Your task to perform on an android device: turn vacation reply on in the gmail app Image 0: 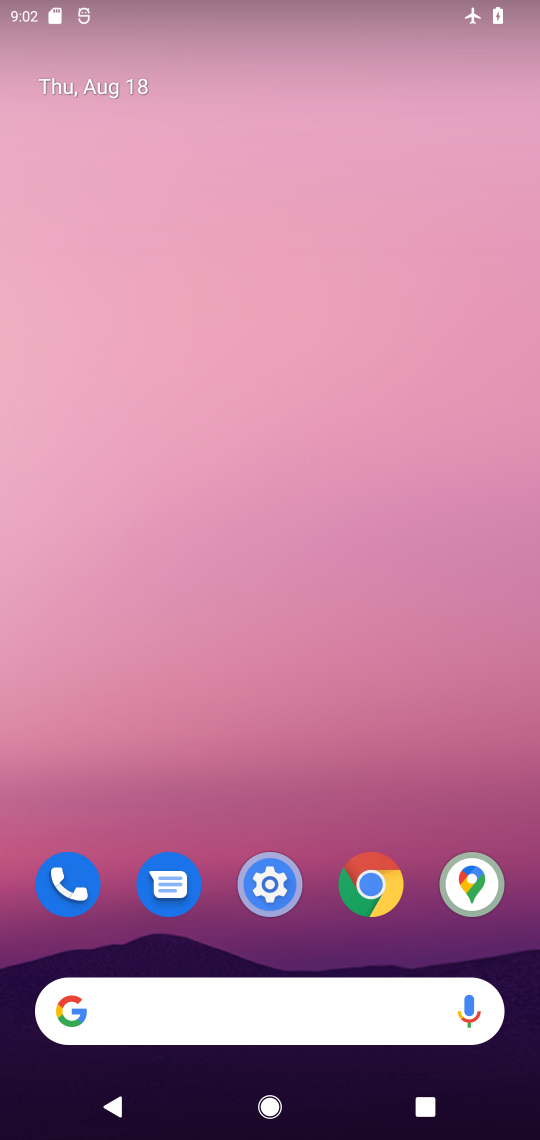
Step 0: drag from (221, 955) to (278, 24)
Your task to perform on an android device: turn vacation reply on in the gmail app Image 1: 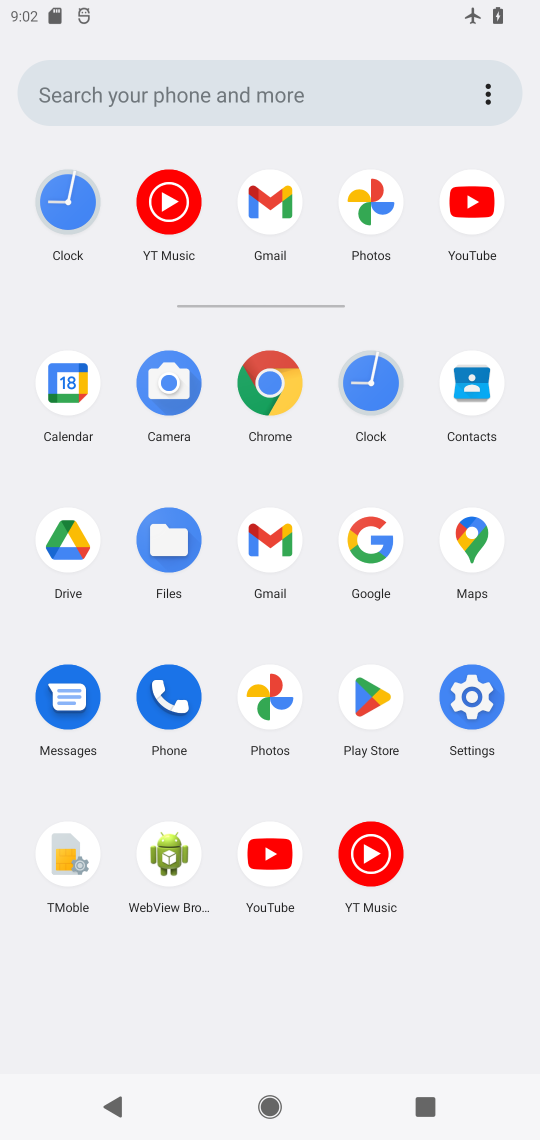
Step 1: click (285, 193)
Your task to perform on an android device: turn vacation reply on in the gmail app Image 2: 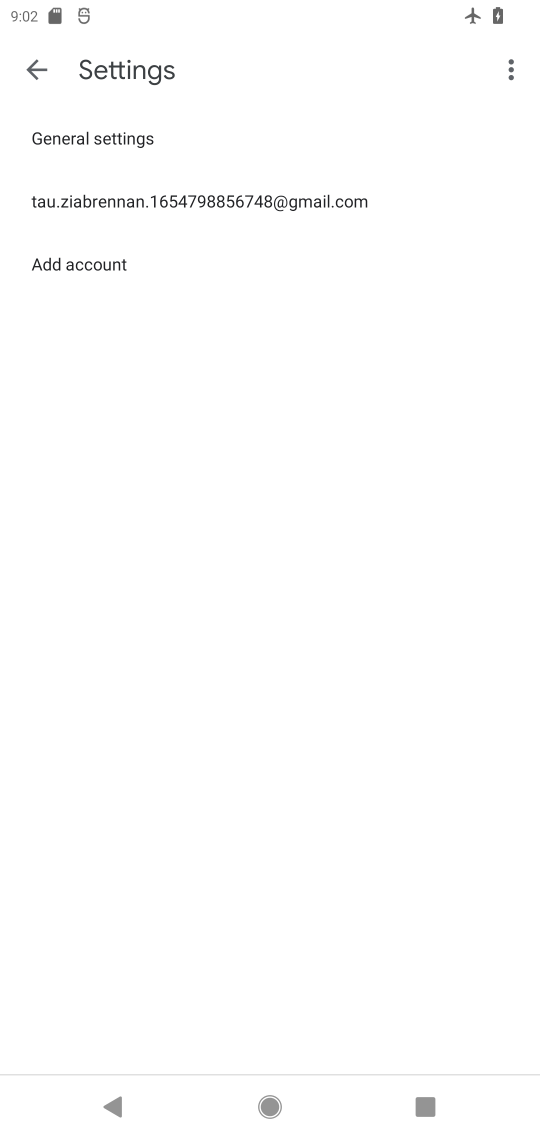
Step 2: click (241, 200)
Your task to perform on an android device: turn vacation reply on in the gmail app Image 3: 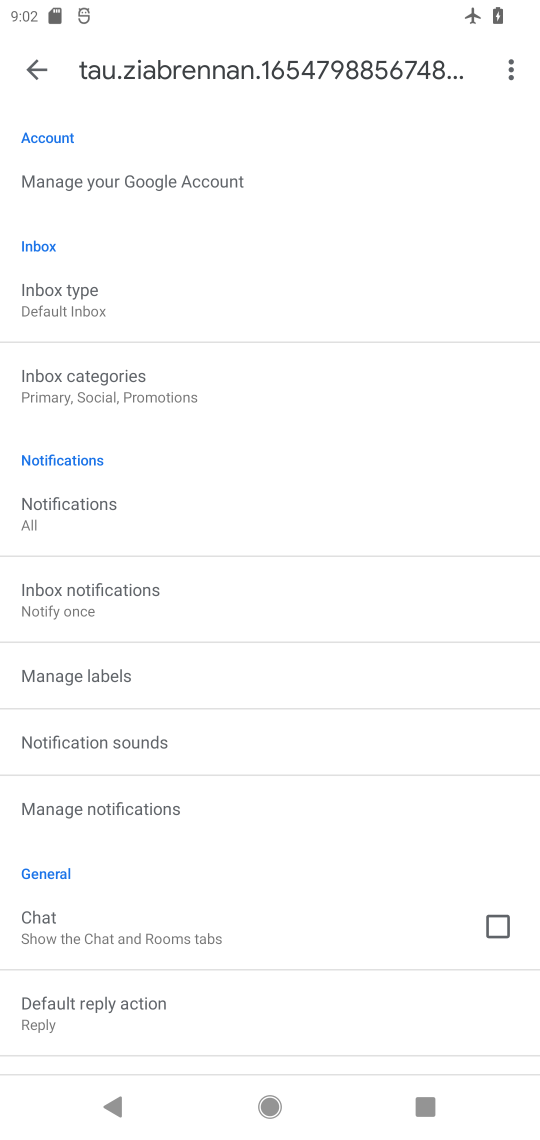
Step 3: drag from (267, 995) to (278, 115)
Your task to perform on an android device: turn vacation reply on in the gmail app Image 4: 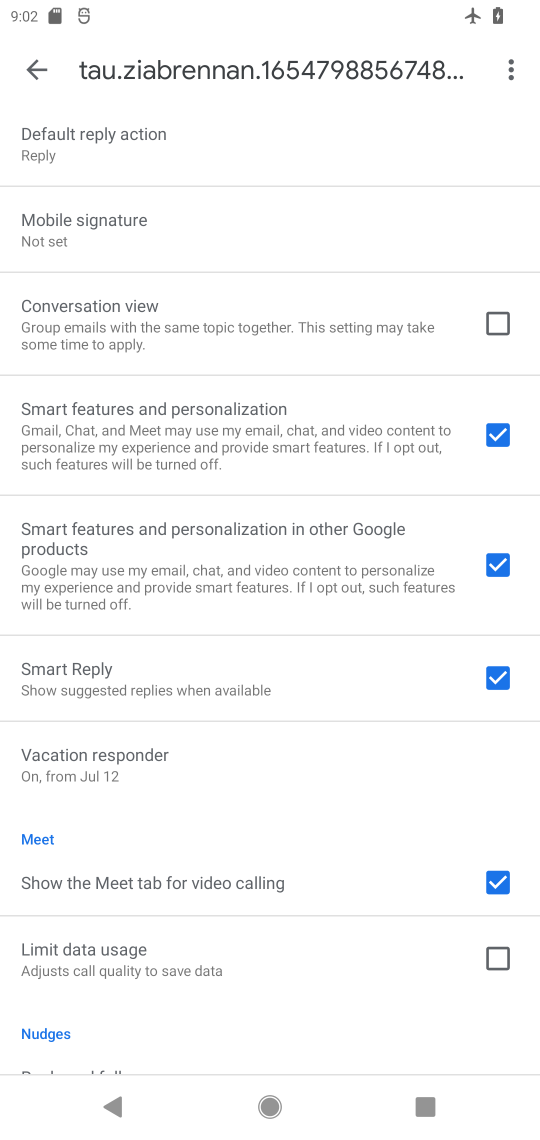
Step 4: drag from (113, 1023) to (233, 4)
Your task to perform on an android device: turn vacation reply on in the gmail app Image 5: 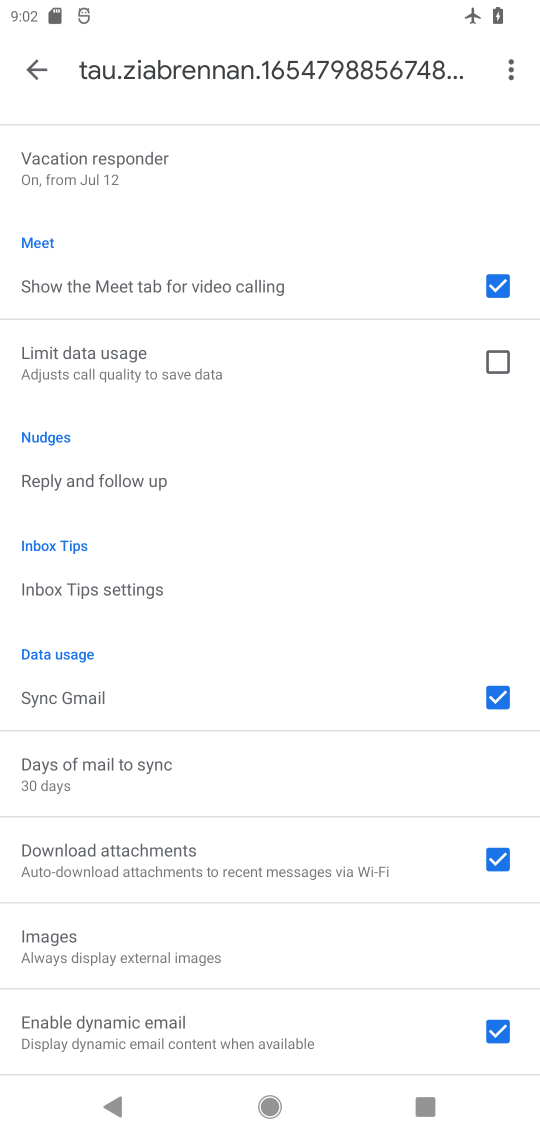
Step 5: drag from (189, 979) to (281, 51)
Your task to perform on an android device: turn vacation reply on in the gmail app Image 6: 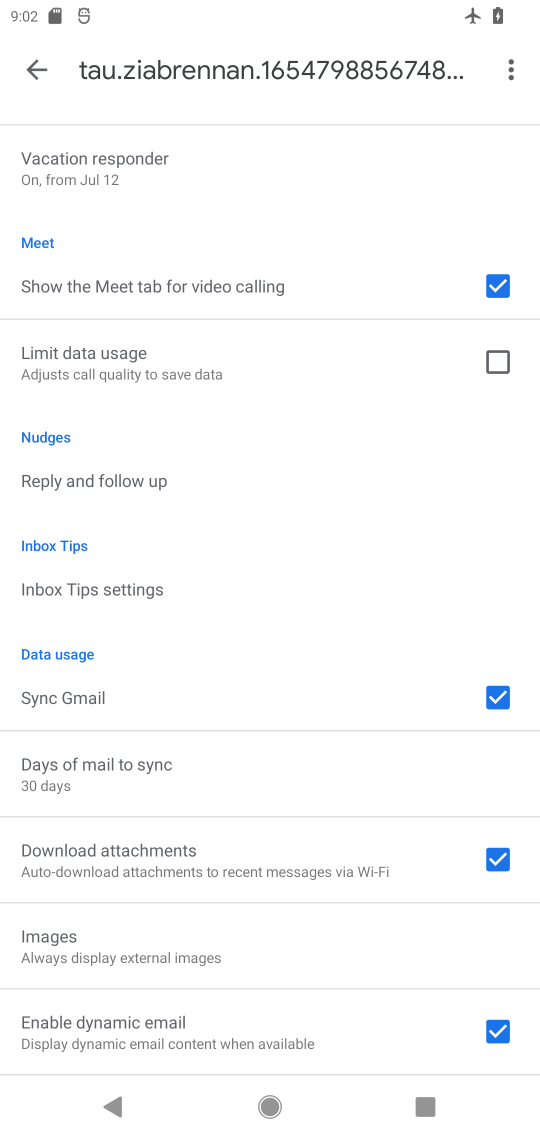
Step 6: drag from (237, 978) to (181, 302)
Your task to perform on an android device: turn vacation reply on in the gmail app Image 7: 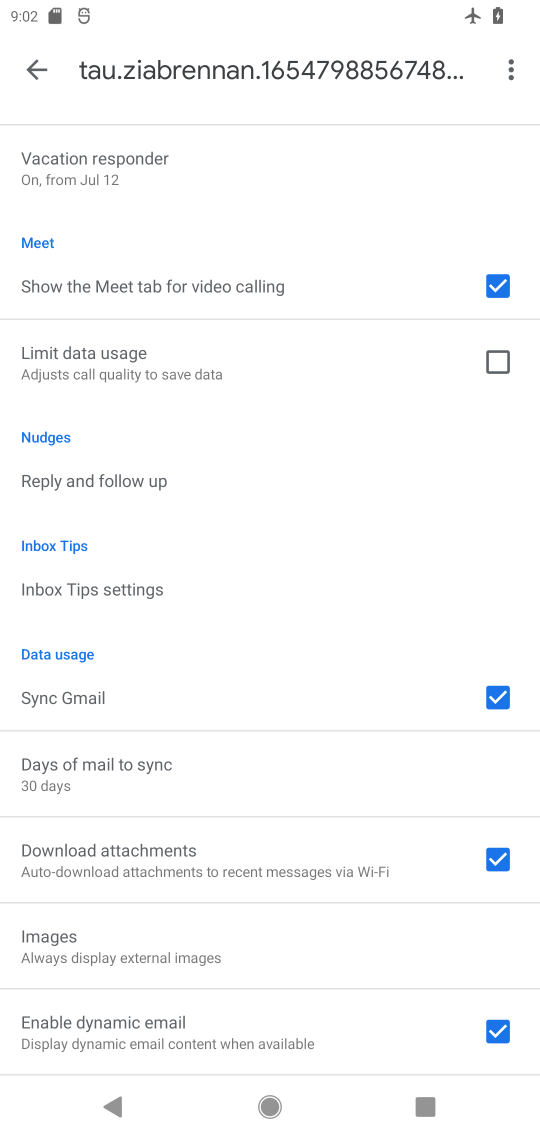
Step 7: drag from (271, 863) to (311, 171)
Your task to perform on an android device: turn vacation reply on in the gmail app Image 8: 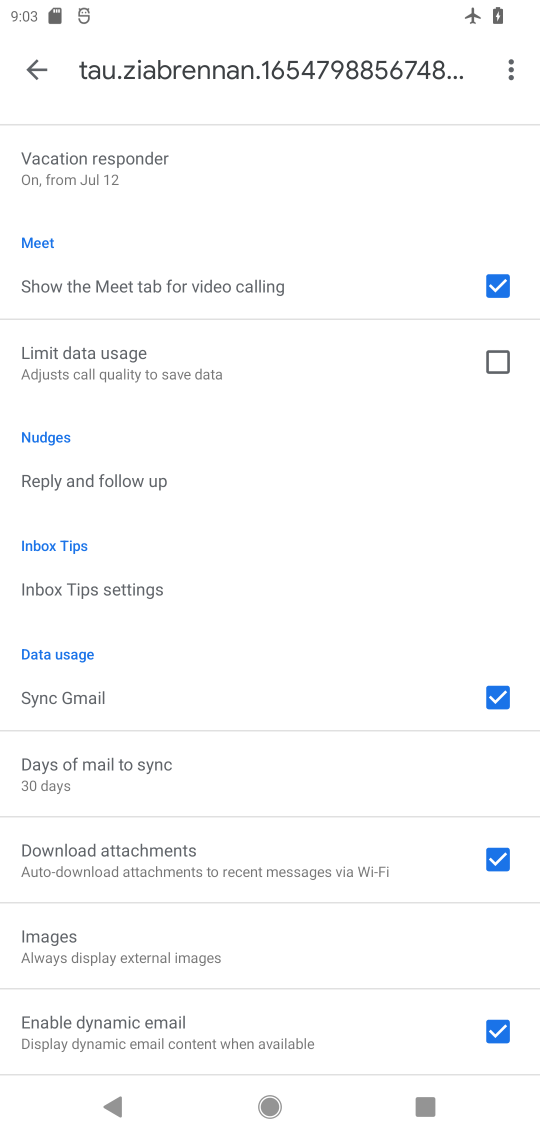
Step 8: drag from (204, 1020) to (265, 265)
Your task to perform on an android device: turn vacation reply on in the gmail app Image 9: 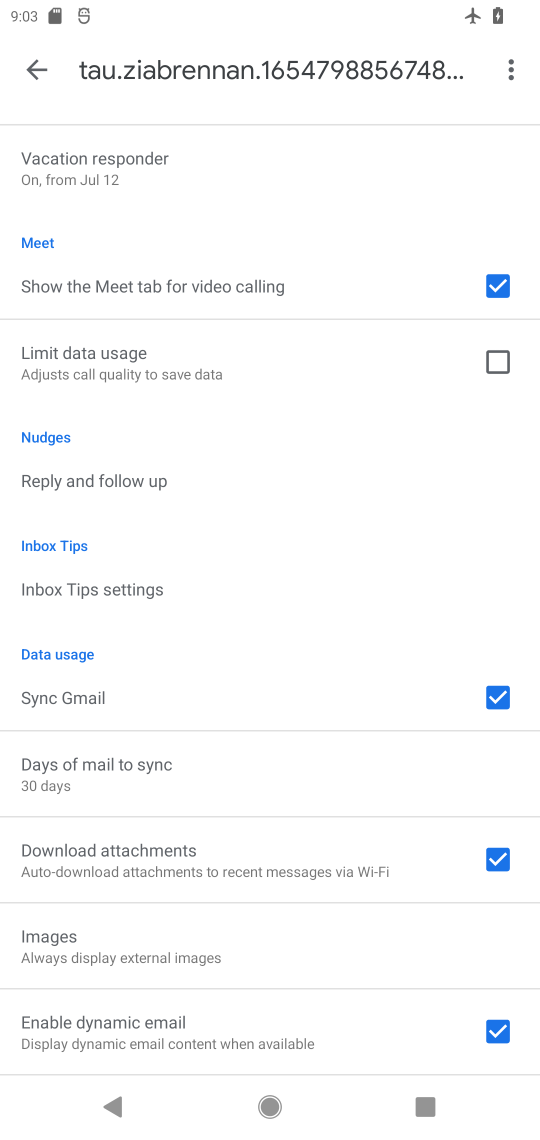
Step 9: click (129, 189)
Your task to perform on an android device: turn vacation reply on in the gmail app Image 10: 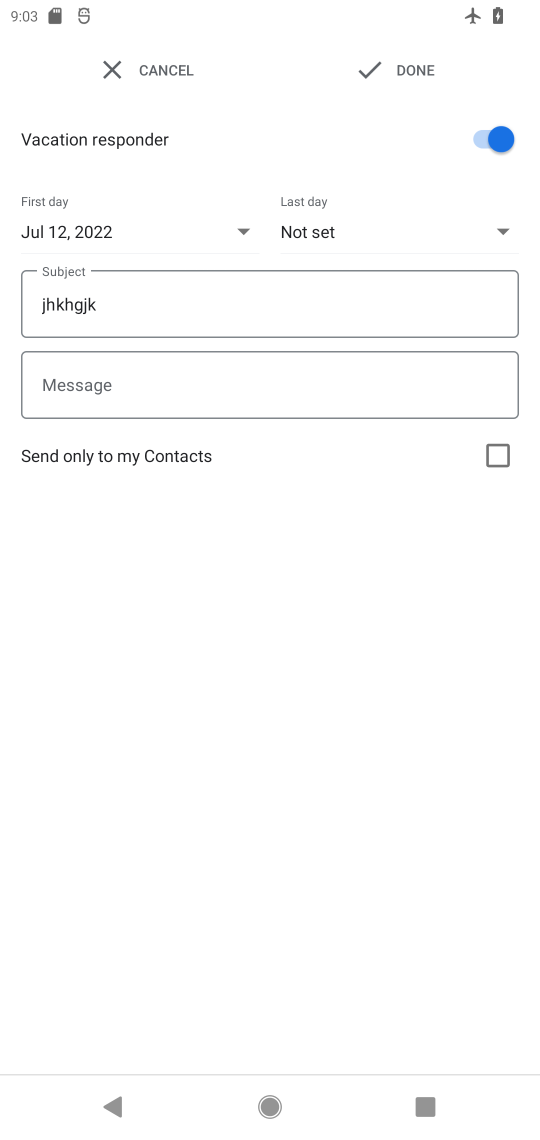
Step 10: click (420, 60)
Your task to perform on an android device: turn vacation reply on in the gmail app Image 11: 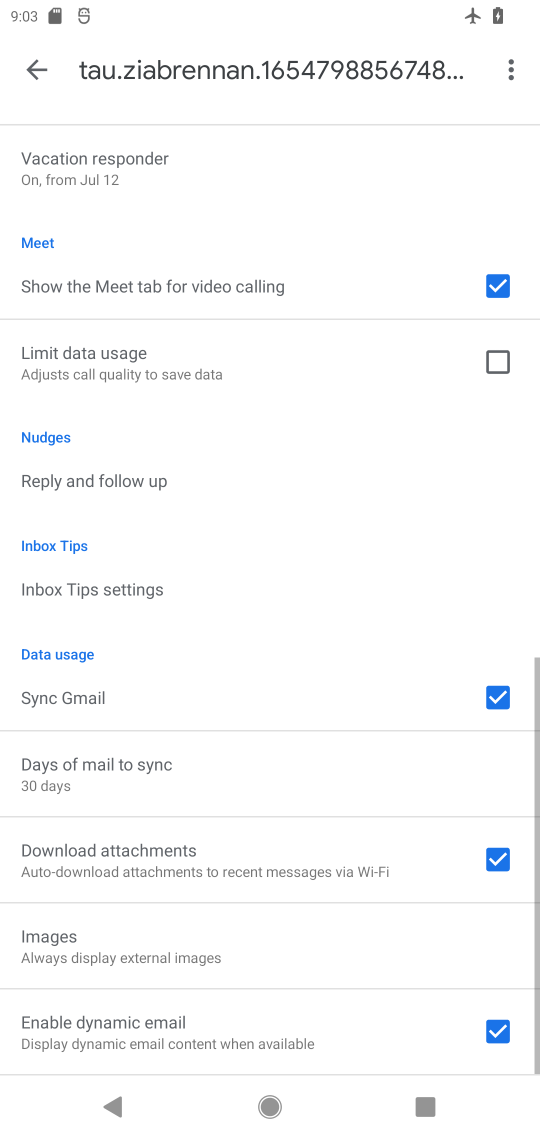
Step 11: task complete